Your task to perform on an android device: toggle notifications settings in the gmail app Image 0: 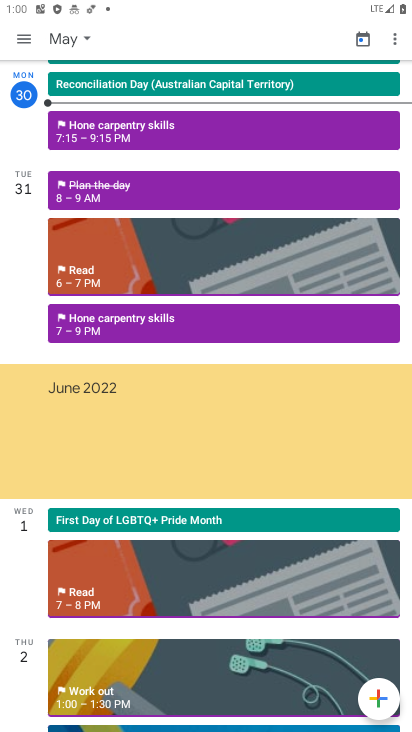
Step 0: press home button
Your task to perform on an android device: toggle notifications settings in the gmail app Image 1: 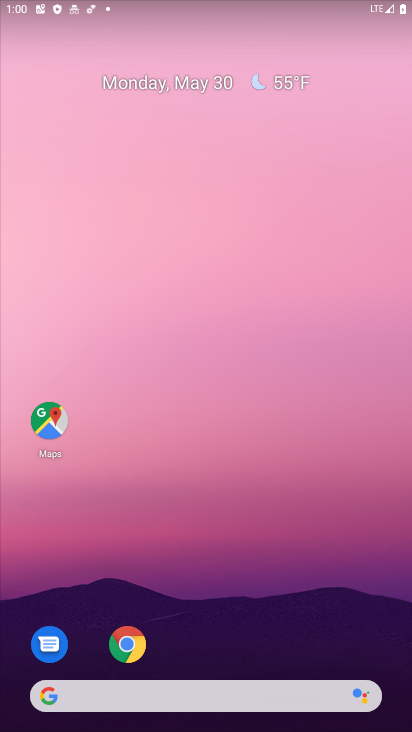
Step 1: drag from (289, 660) to (215, 3)
Your task to perform on an android device: toggle notifications settings in the gmail app Image 2: 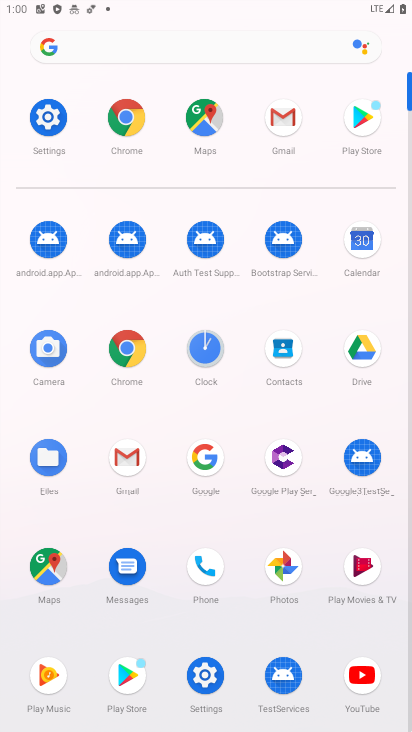
Step 2: click (125, 451)
Your task to perform on an android device: toggle notifications settings in the gmail app Image 3: 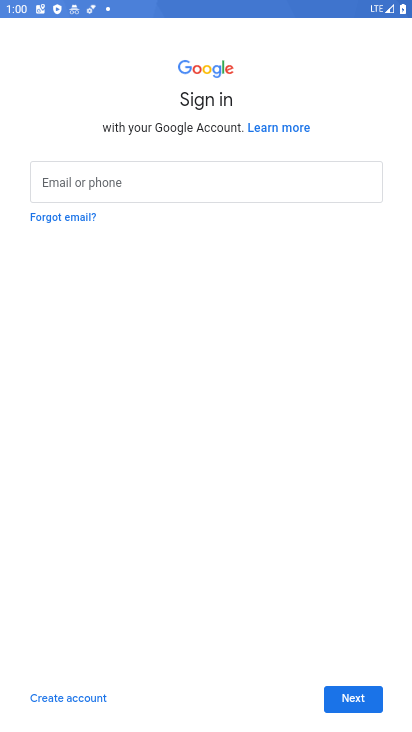
Step 3: click (359, 706)
Your task to perform on an android device: toggle notifications settings in the gmail app Image 4: 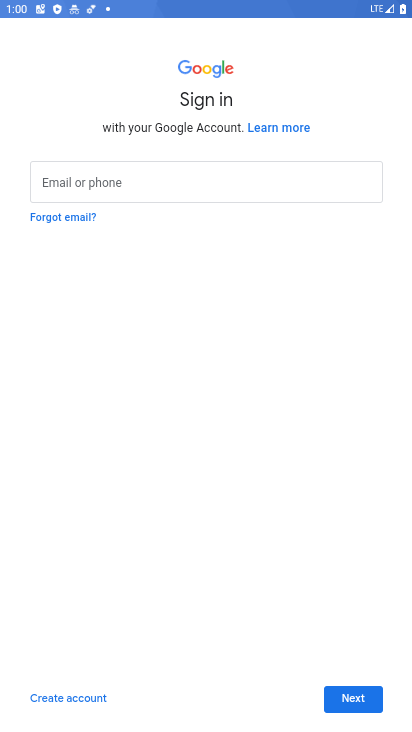
Step 4: click (359, 706)
Your task to perform on an android device: toggle notifications settings in the gmail app Image 5: 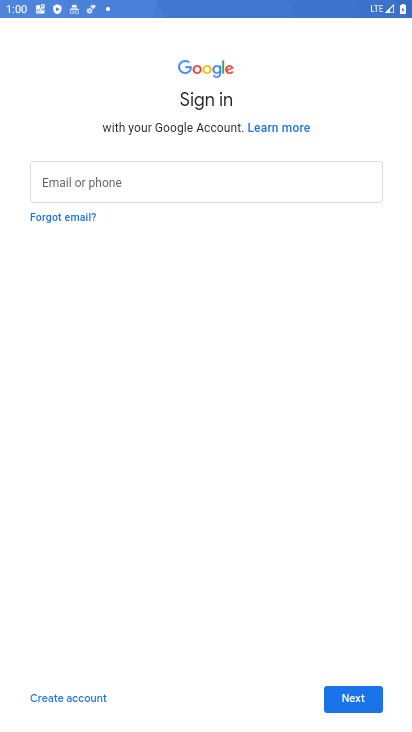
Step 5: click (359, 706)
Your task to perform on an android device: toggle notifications settings in the gmail app Image 6: 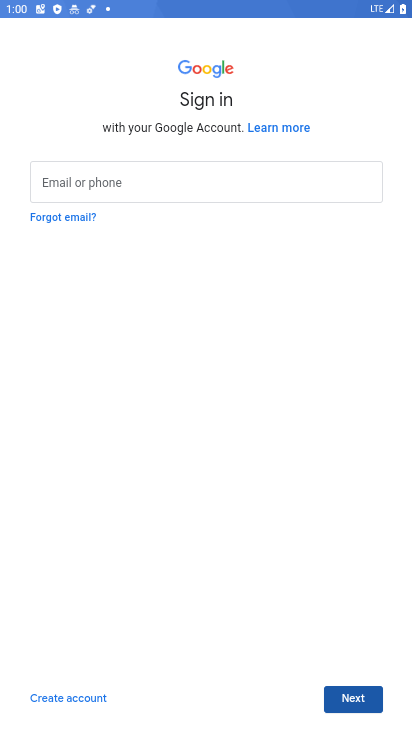
Step 6: click (359, 706)
Your task to perform on an android device: toggle notifications settings in the gmail app Image 7: 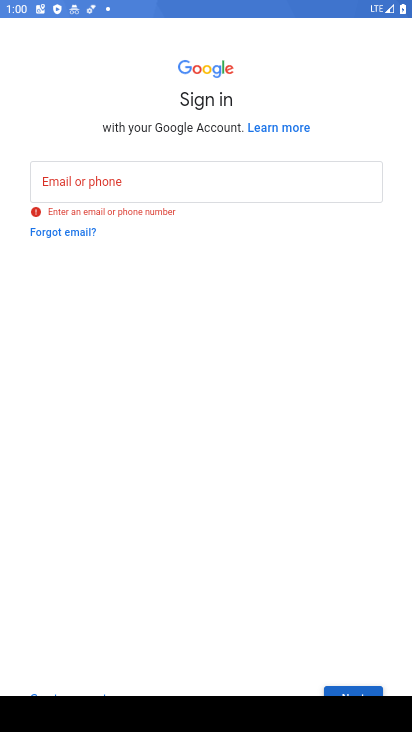
Step 7: click (359, 706)
Your task to perform on an android device: toggle notifications settings in the gmail app Image 8: 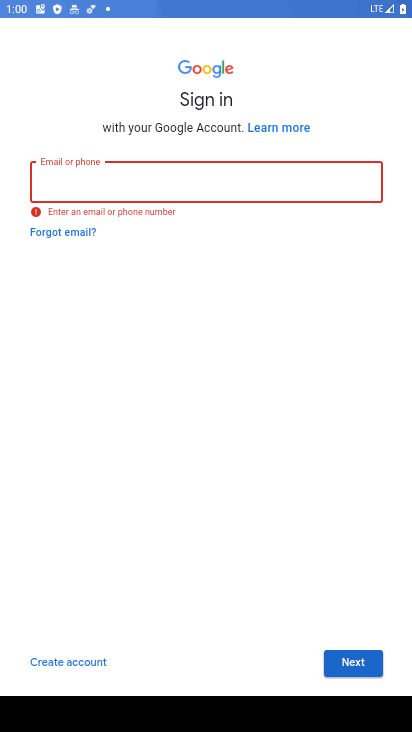
Step 8: click (348, 661)
Your task to perform on an android device: toggle notifications settings in the gmail app Image 9: 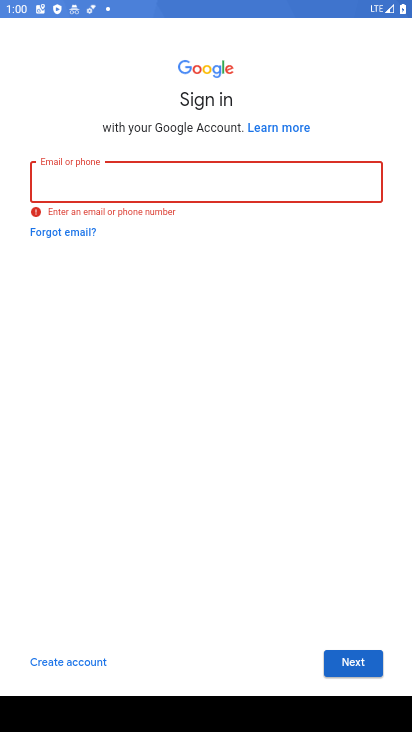
Step 9: press home button
Your task to perform on an android device: toggle notifications settings in the gmail app Image 10: 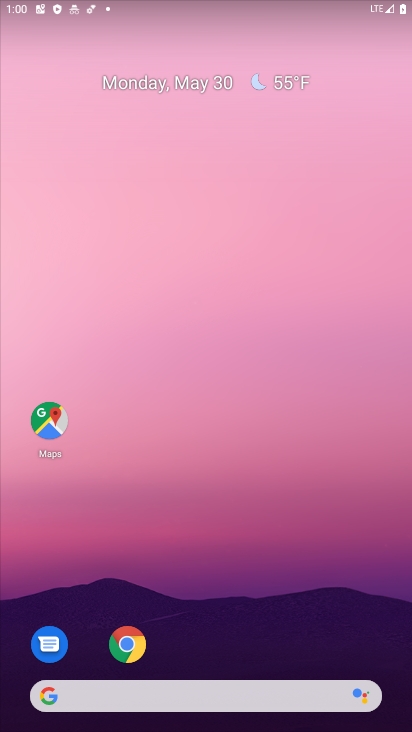
Step 10: drag from (326, 591) to (202, 5)
Your task to perform on an android device: toggle notifications settings in the gmail app Image 11: 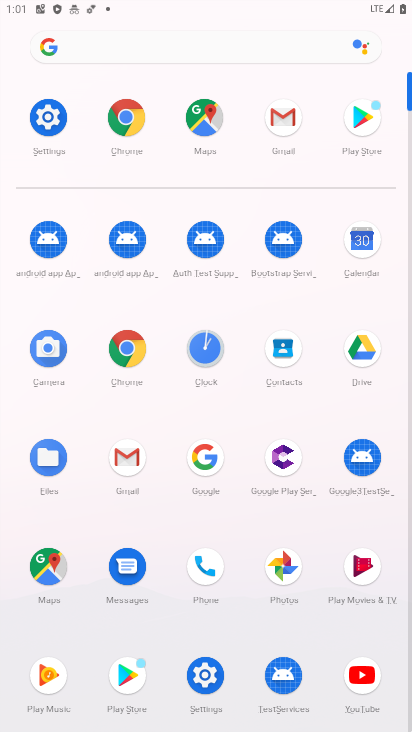
Step 11: click (131, 484)
Your task to perform on an android device: toggle notifications settings in the gmail app Image 12: 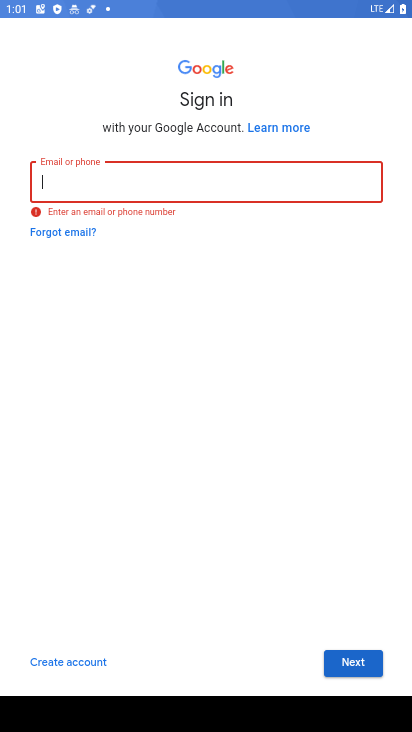
Step 12: task complete